Your task to perform on an android device: Open Chrome and go to the settings page Image 0: 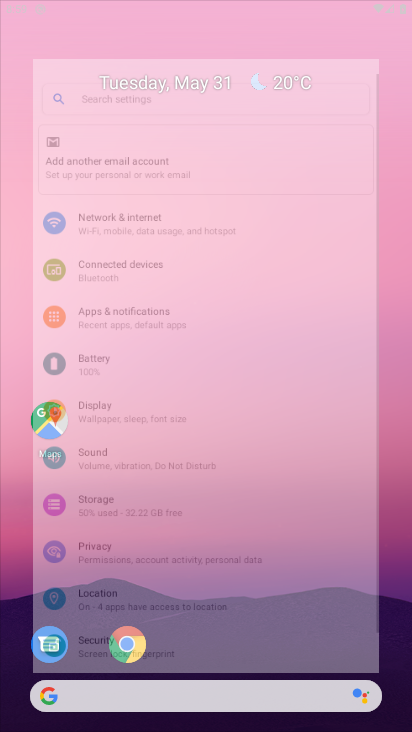
Step 0: press home button
Your task to perform on an android device: Open Chrome and go to the settings page Image 1: 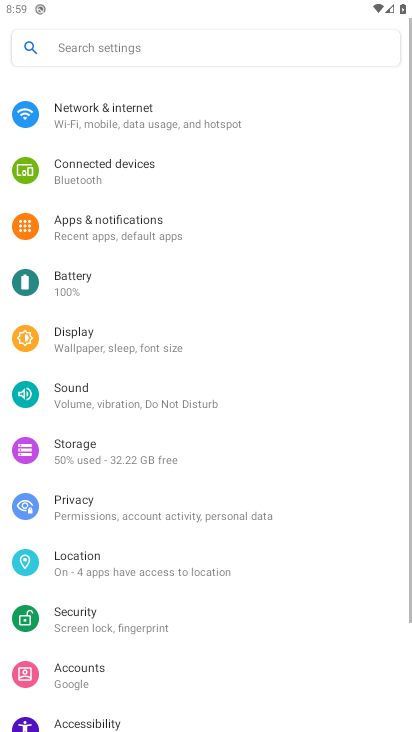
Step 1: press home button
Your task to perform on an android device: Open Chrome and go to the settings page Image 2: 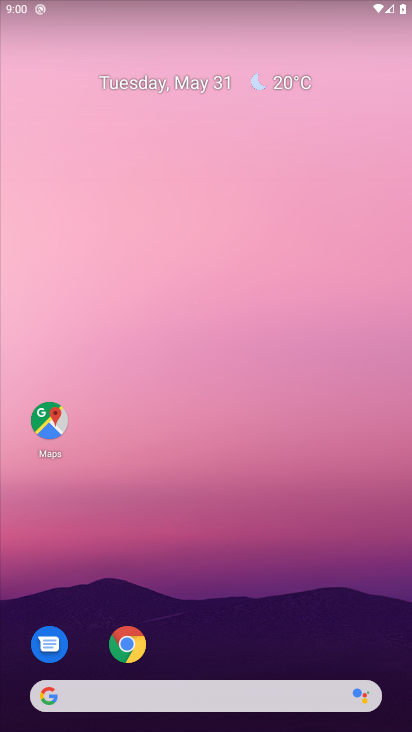
Step 2: click (128, 643)
Your task to perform on an android device: Open Chrome and go to the settings page Image 3: 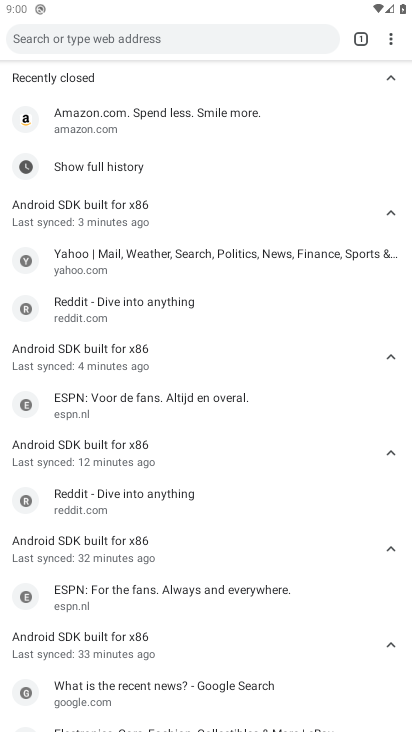
Step 3: press home button
Your task to perform on an android device: Open Chrome and go to the settings page Image 4: 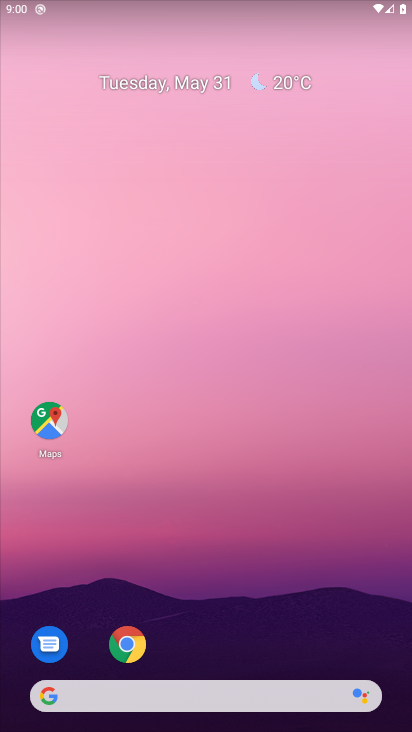
Step 4: click (125, 635)
Your task to perform on an android device: Open Chrome and go to the settings page Image 5: 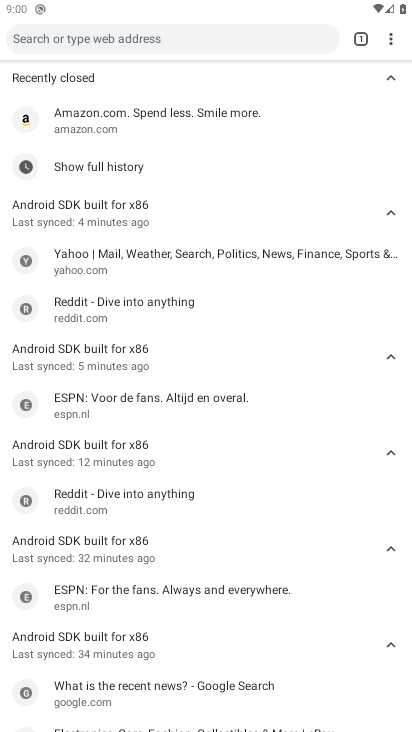
Step 5: click (359, 37)
Your task to perform on an android device: Open Chrome and go to the settings page Image 6: 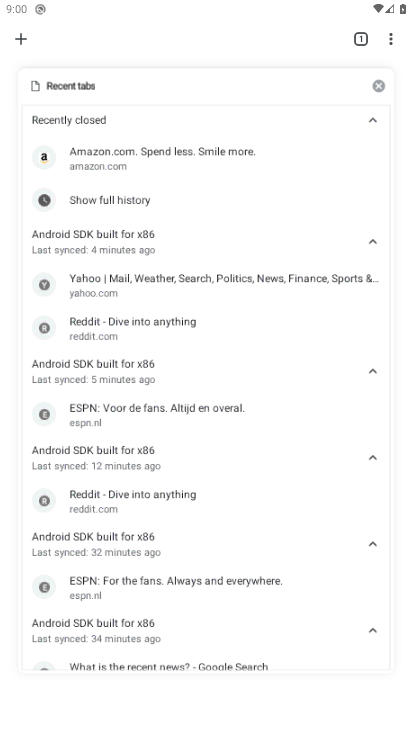
Step 6: click (370, 78)
Your task to perform on an android device: Open Chrome and go to the settings page Image 7: 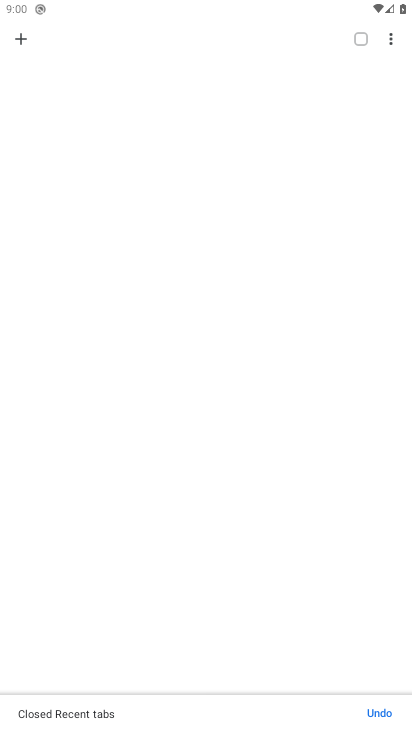
Step 7: click (20, 33)
Your task to perform on an android device: Open Chrome and go to the settings page Image 8: 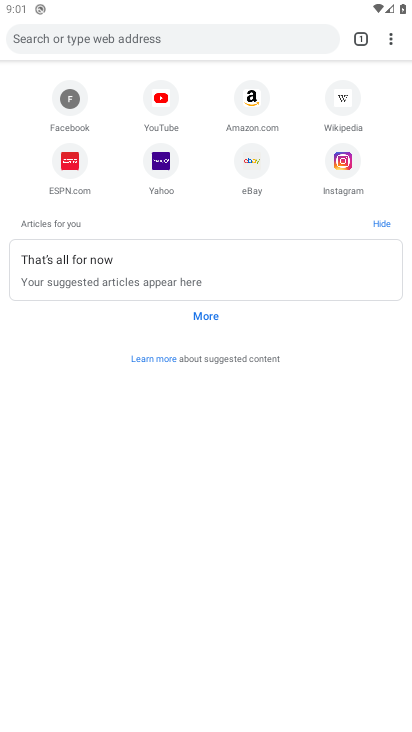
Step 8: click (392, 37)
Your task to perform on an android device: Open Chrome and go to the settings page Image 9: 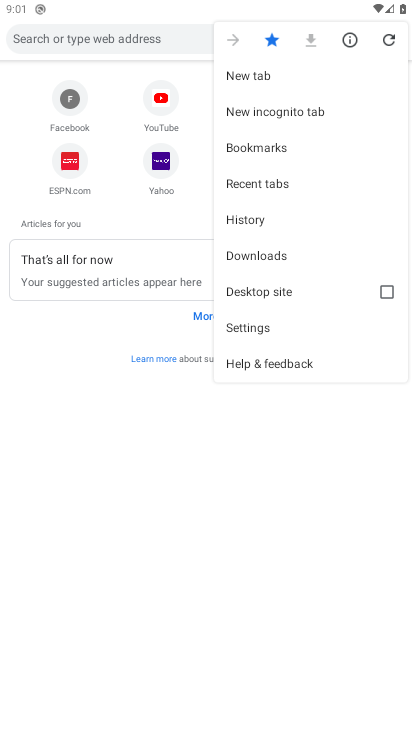
Step 9: click (268, 320)
Your task to perform on an android device: Open Chrome and go to the settings page Image 10: 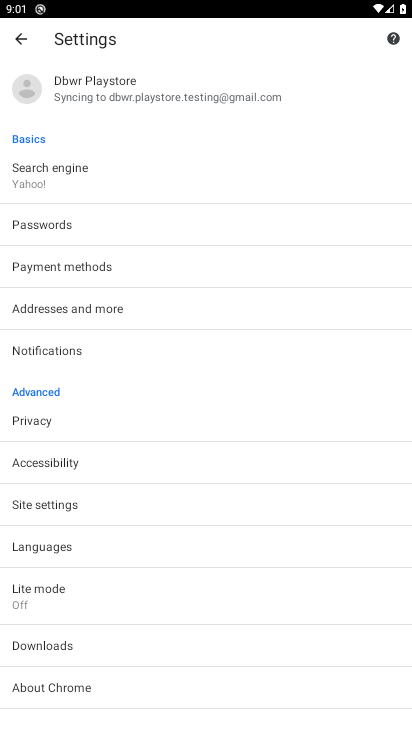
Step 10: task complete